Your task to perform on an android device: open app "Grab" (install if not already installed), go to login, and select forgot password Image 0: 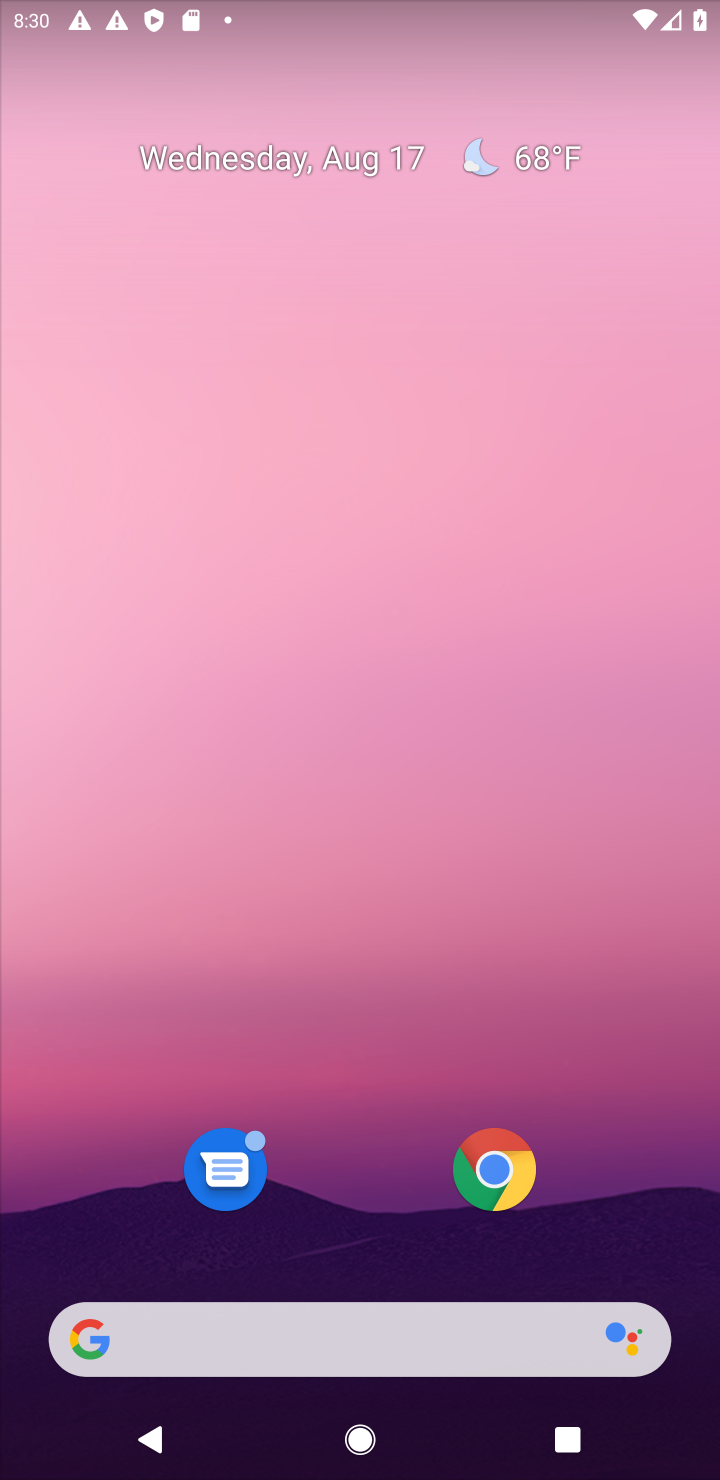
Step 0: drag from (330, 671) to (393, 259)
Your task to perform on an android device: open app "Grab" (install if not already installed), go to login, and select forgot password Image 1: 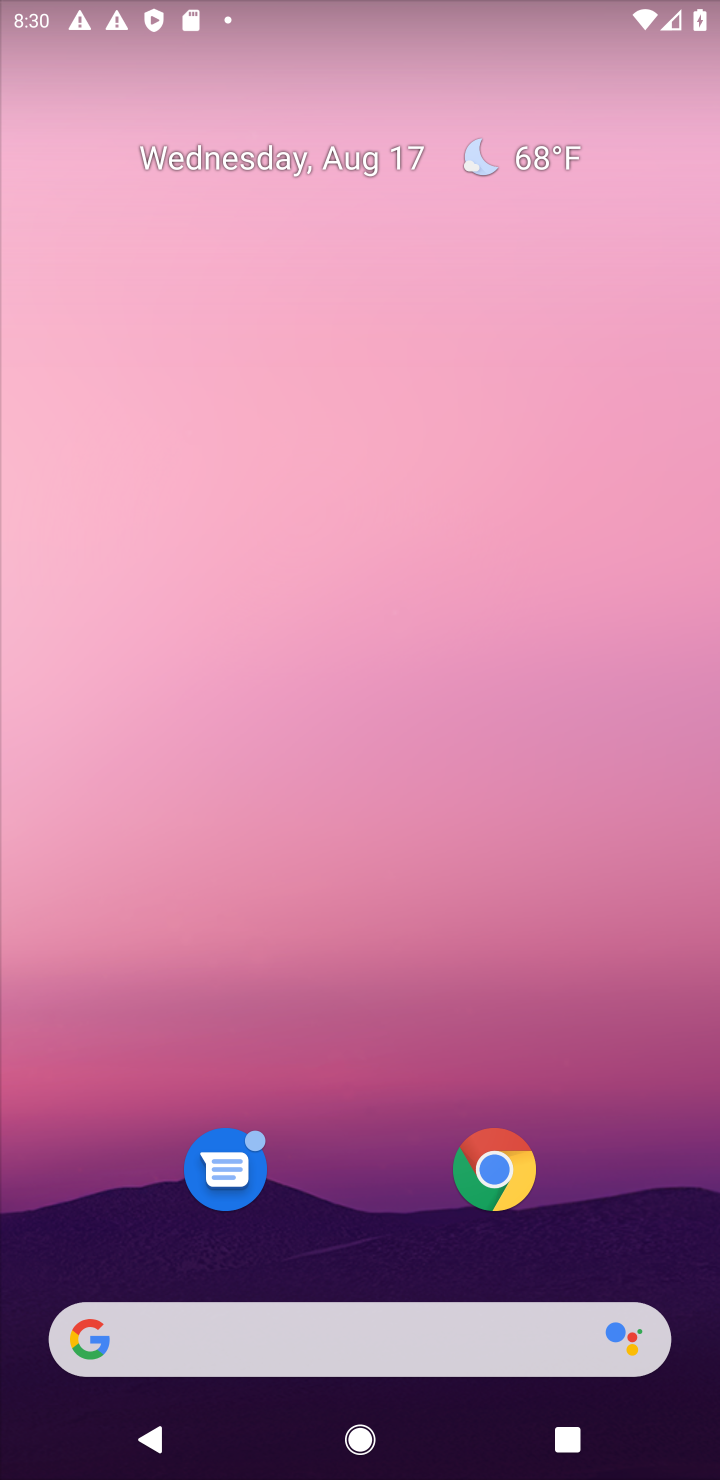
Step 1: drag from (359, 1023) to (386, 11)
Your task to perform on an android device: open app "Grab" (install if not already installed), go to login, and select forgot password Image 2: 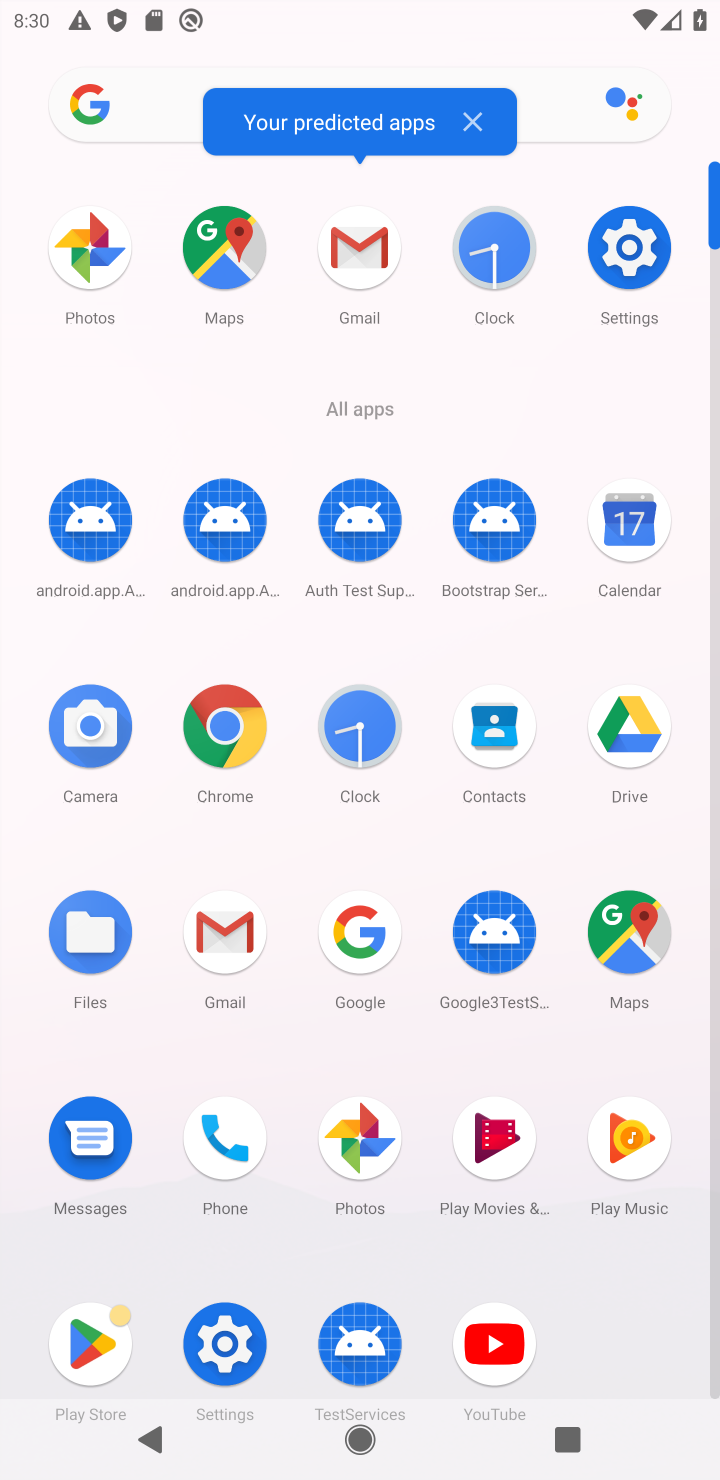
Step 2: click (66, 1350)
Your task to perform on an android device: open app "Grab" (install if not already installed), go to login, and select forgot password Image 3: 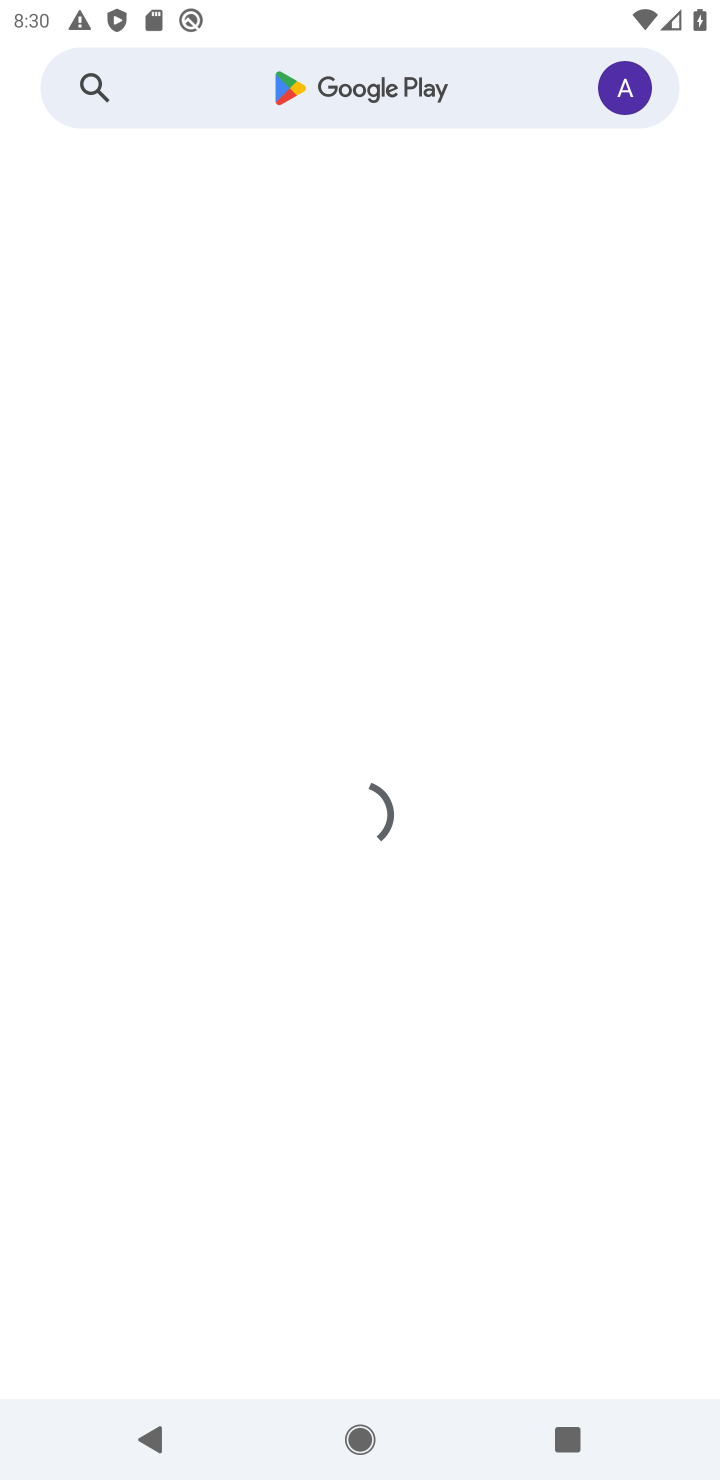
Step 3: click (347, 89)
Your task to perform on an android device: open app "Grab" (install if not already installed), go to login, and select forgot password Image 4: 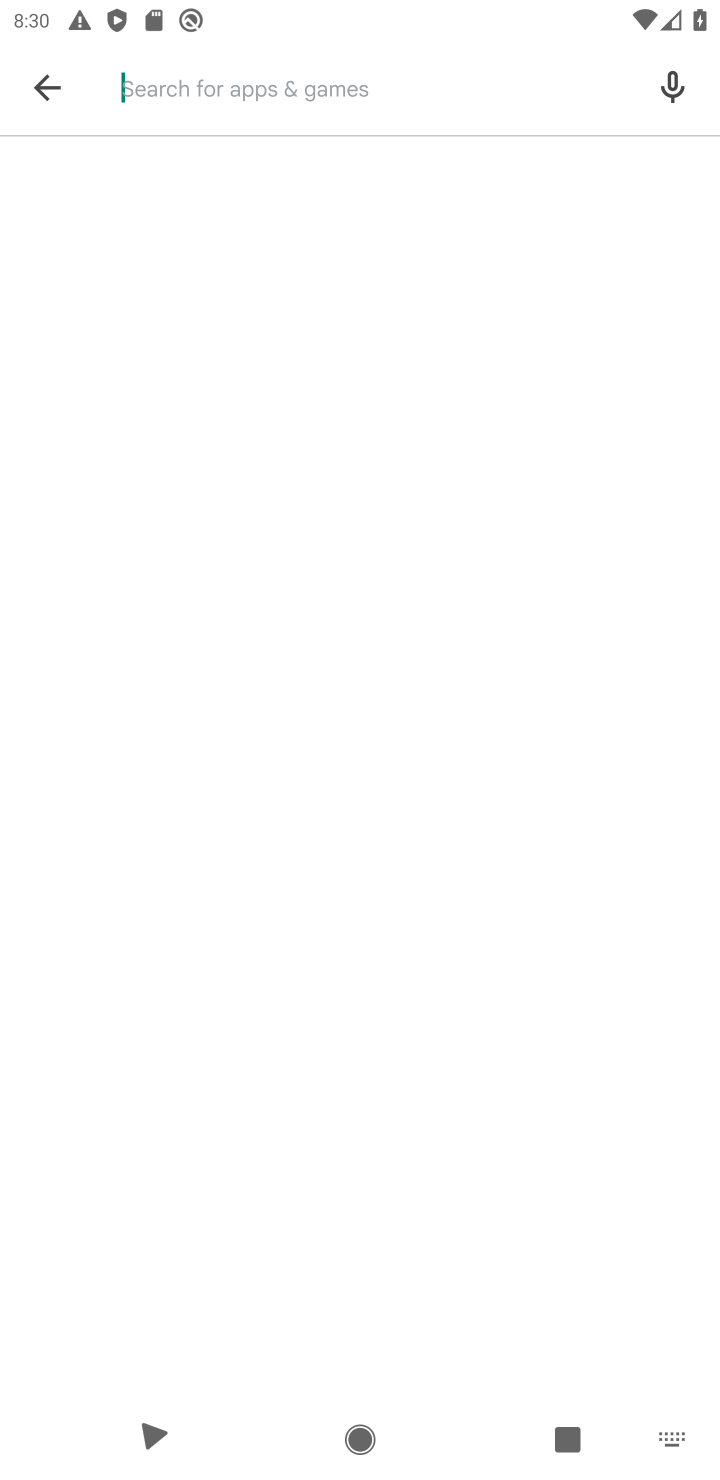
Step 4: type "Grab"
Your task to perform on an android device: open app "Grab" (install if not already installed), go to login, and select forgot password Image 5: 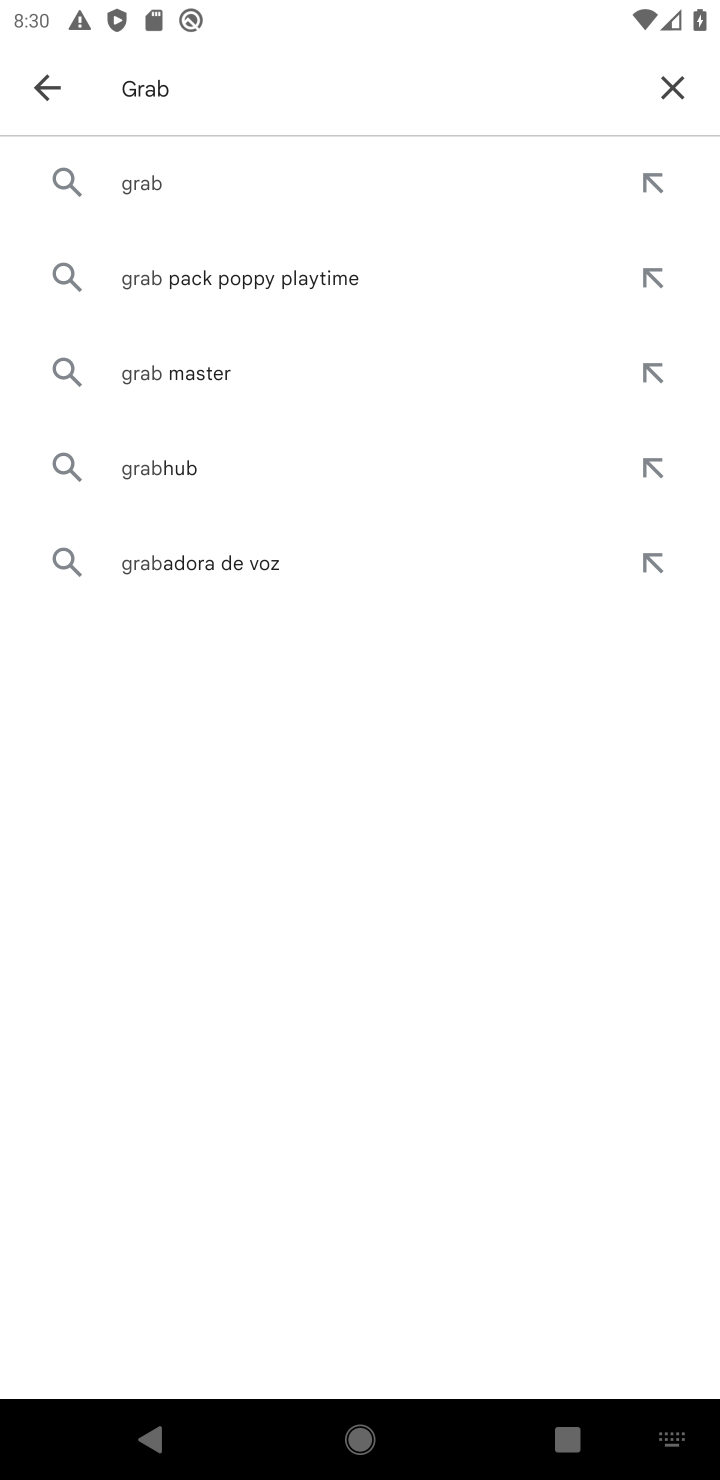
Step 5: click (203, 189)
Your task to perform on an android device: open app "Grab" (install if not already installed), go to login, and select forgot password Image 6: 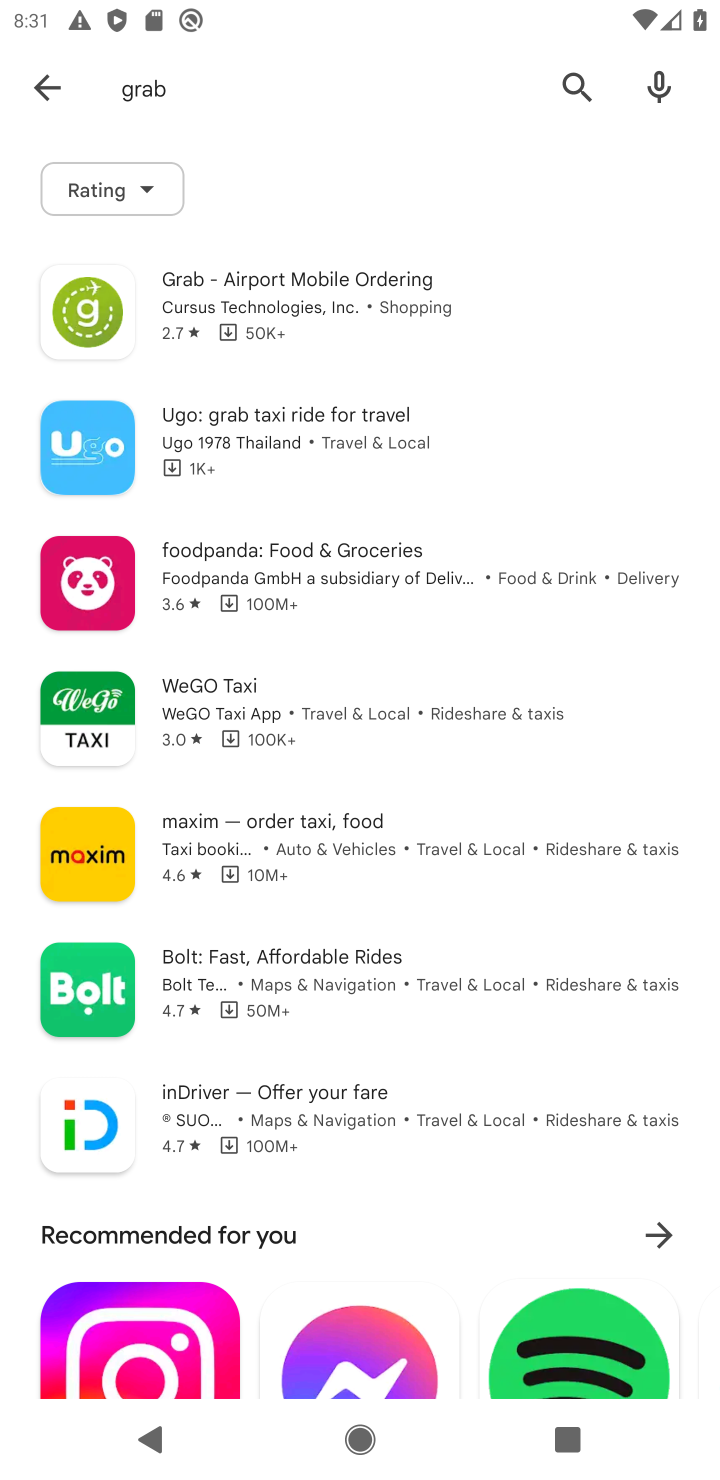
Step 6: click (289, 307)
Your task to perform on an android device: open app "Grab" (install if not already installed), go to login, and select forgot password Image 7: 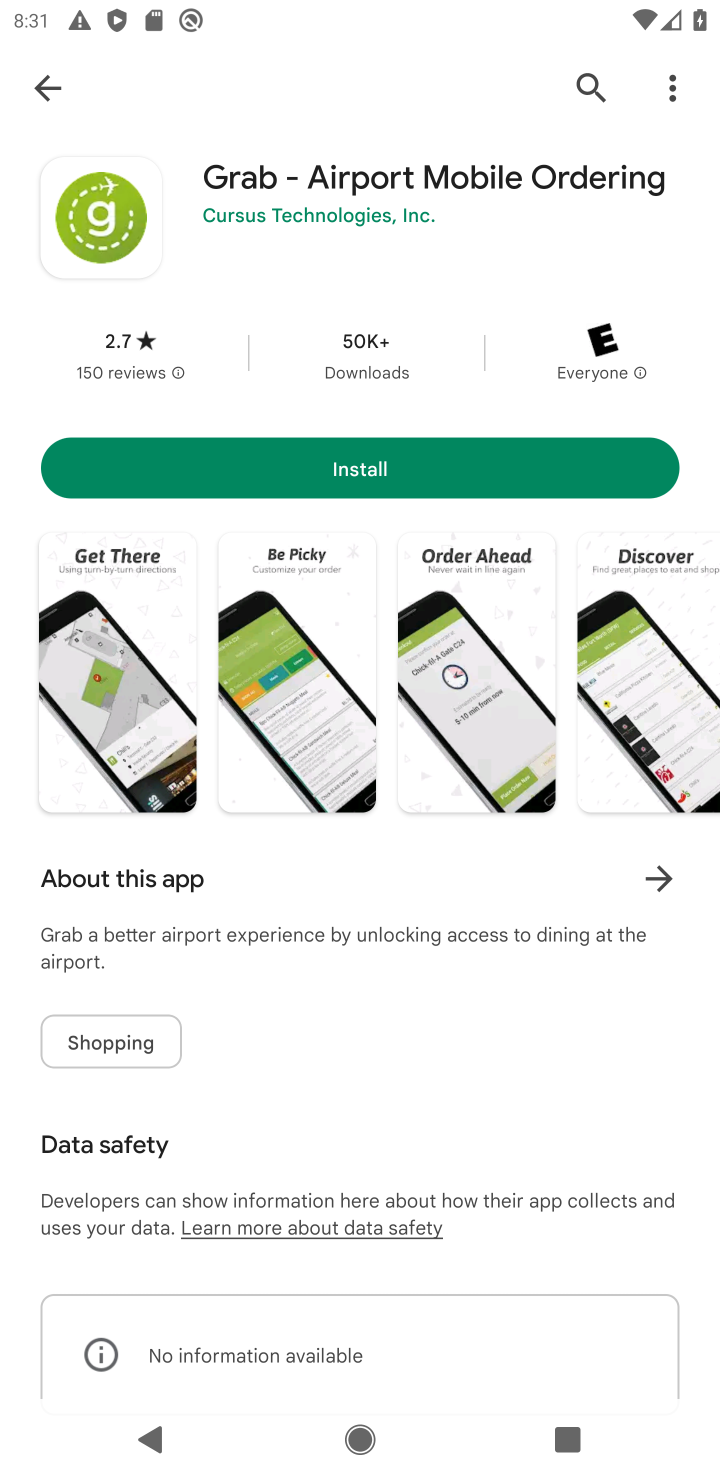
Step 7: click (450, 476)
Your task to perform on an android device: open app "Grab" (install if not already installed), go to login, and select forgot password Image 8: 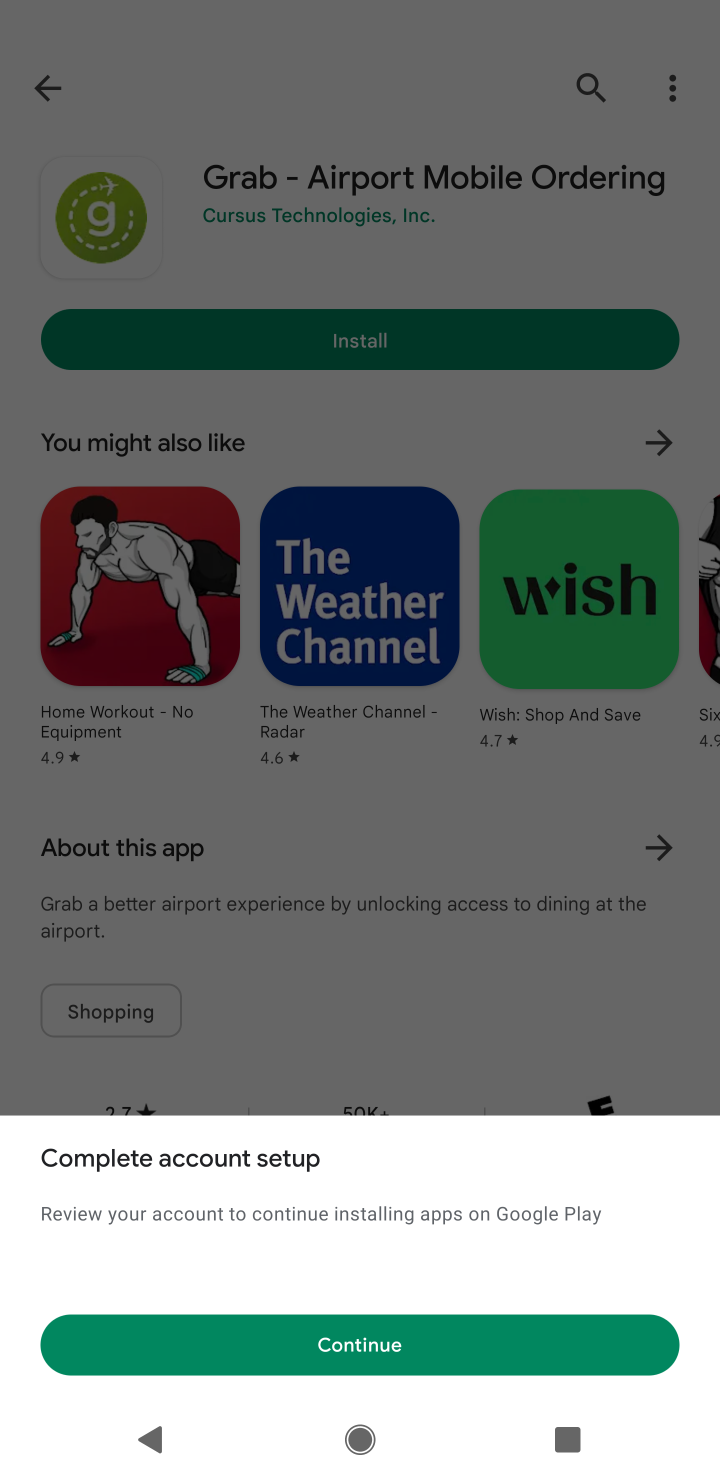
Step 8: click (403, 1351)
Your task to perform on an android device: open app "Grab" (install if not already installed), go to login, and select forgot password Image 9: 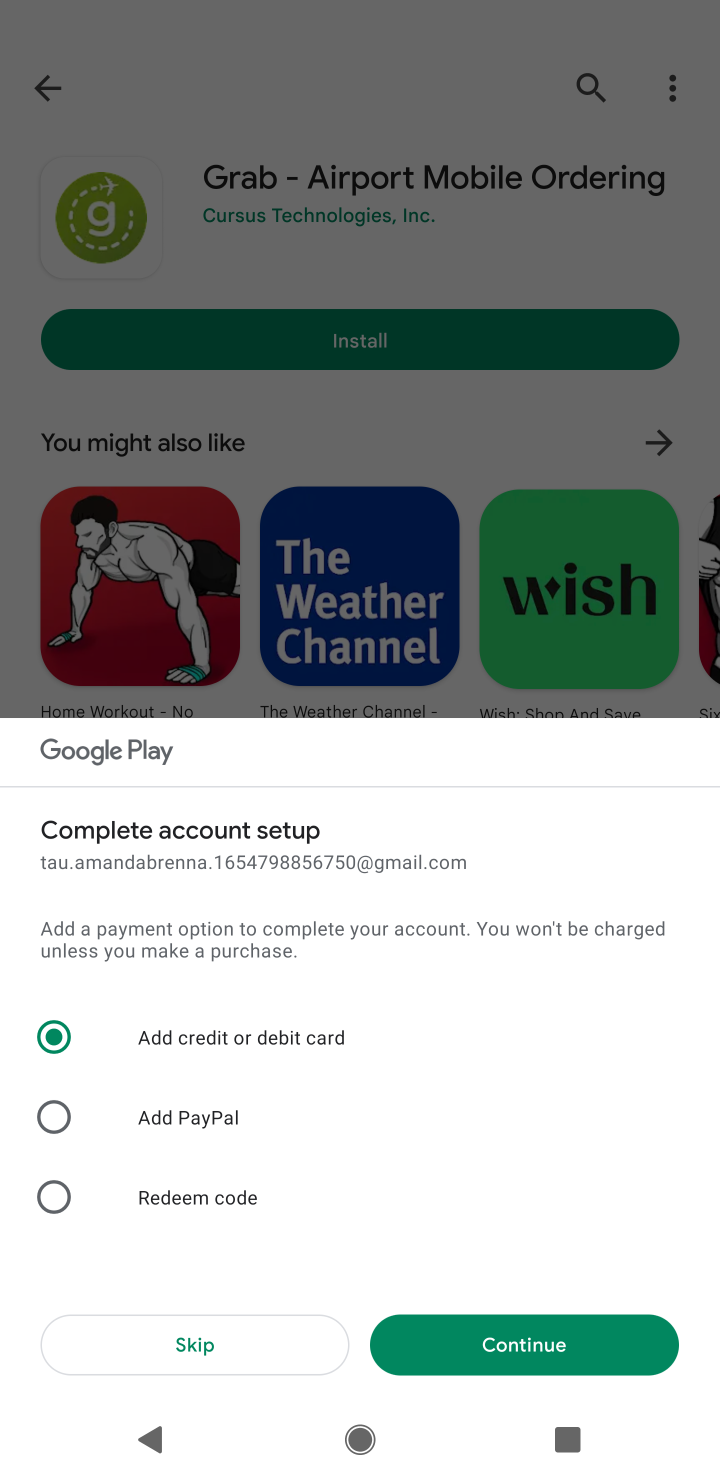
Step 9: click (233, 1352)
Your task to perform on an android device: open app "Grab" (install if not already installed), go to login, and select forgot password Image 10: 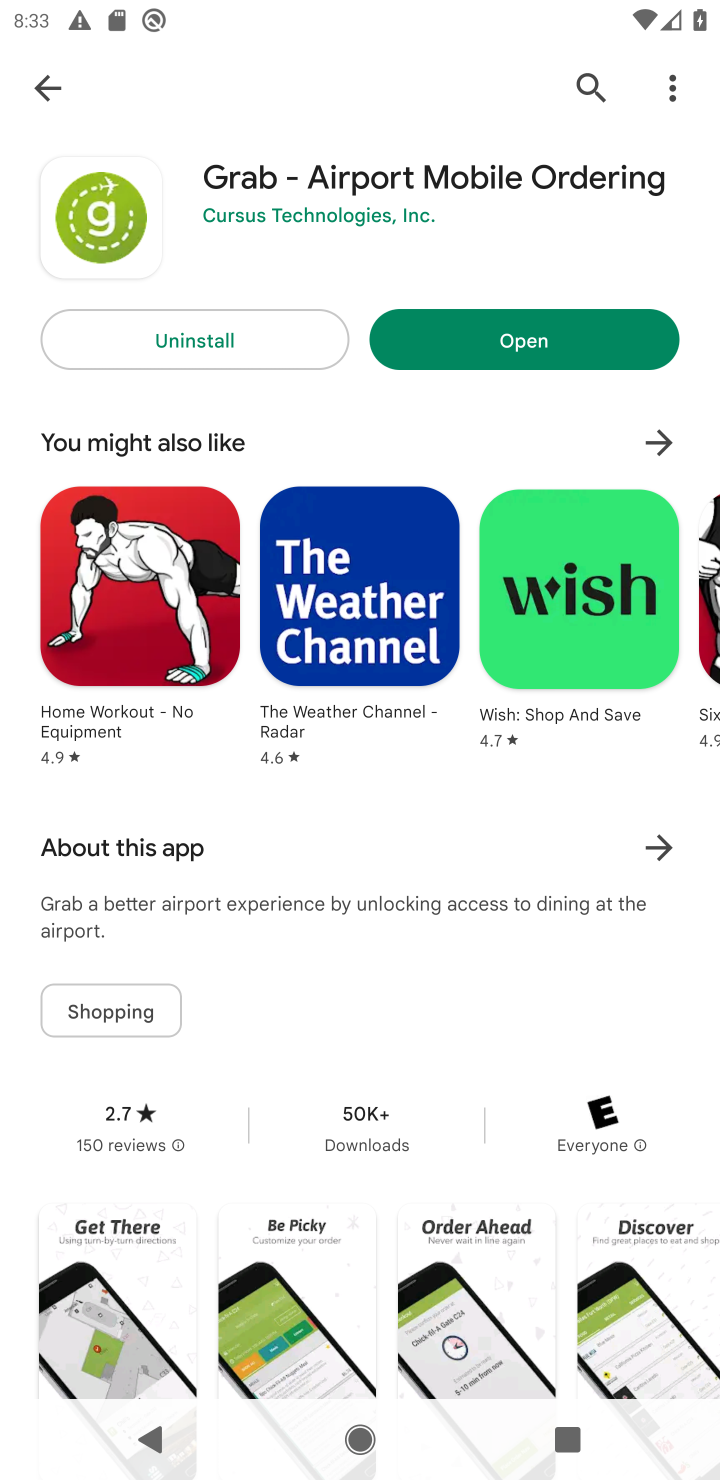
Step 10: click (524, 338)
Your task to perform on an android device: open app "Grab" (install if not already installed), go to login, and select forgot password Image 11: 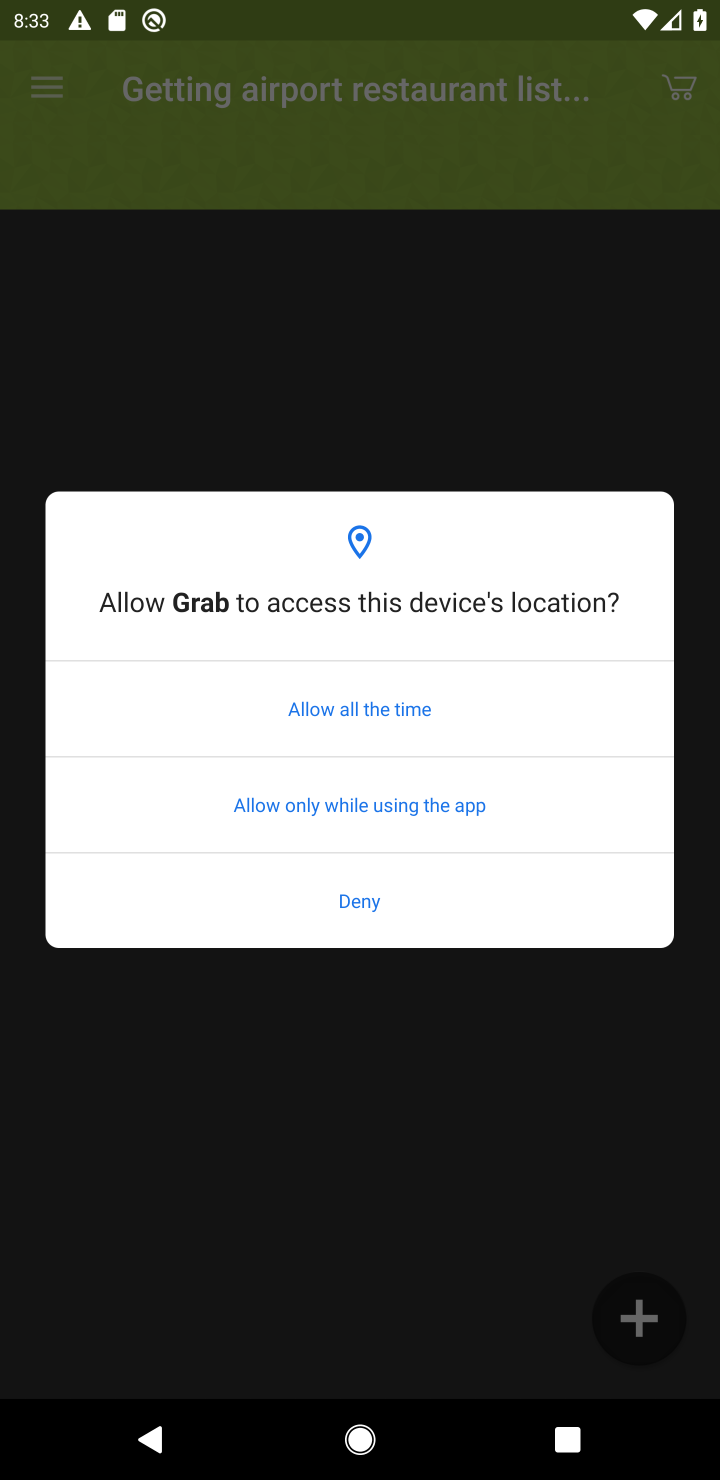
Step 11: click (328, 698)
Your task to perform on an android device: open app "Grab" (install if not already installed), go to login, and select forgot password Image 12: 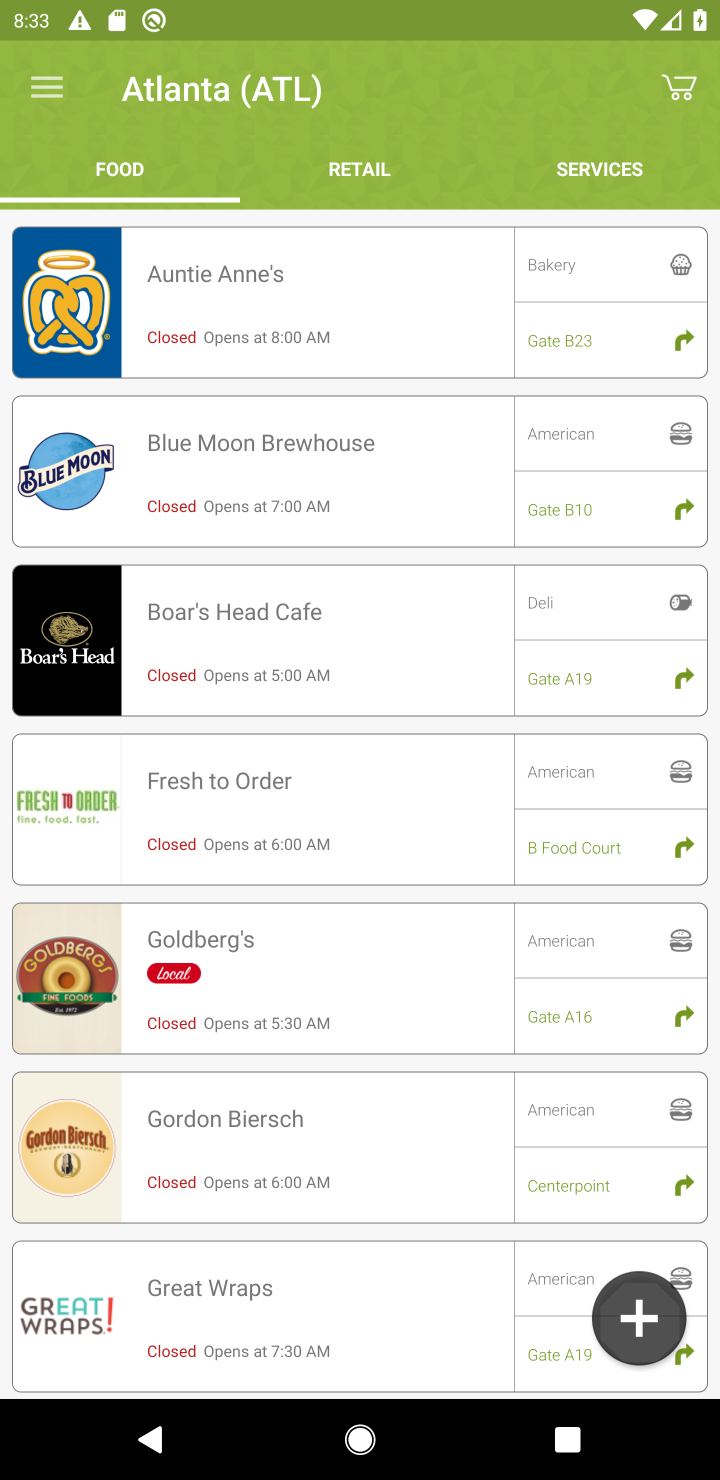
Step 12: click (50, 84)
Your task to perform on an android device: open app "Grab" (install if not already installed), go to login, and select forgot password Image 13: 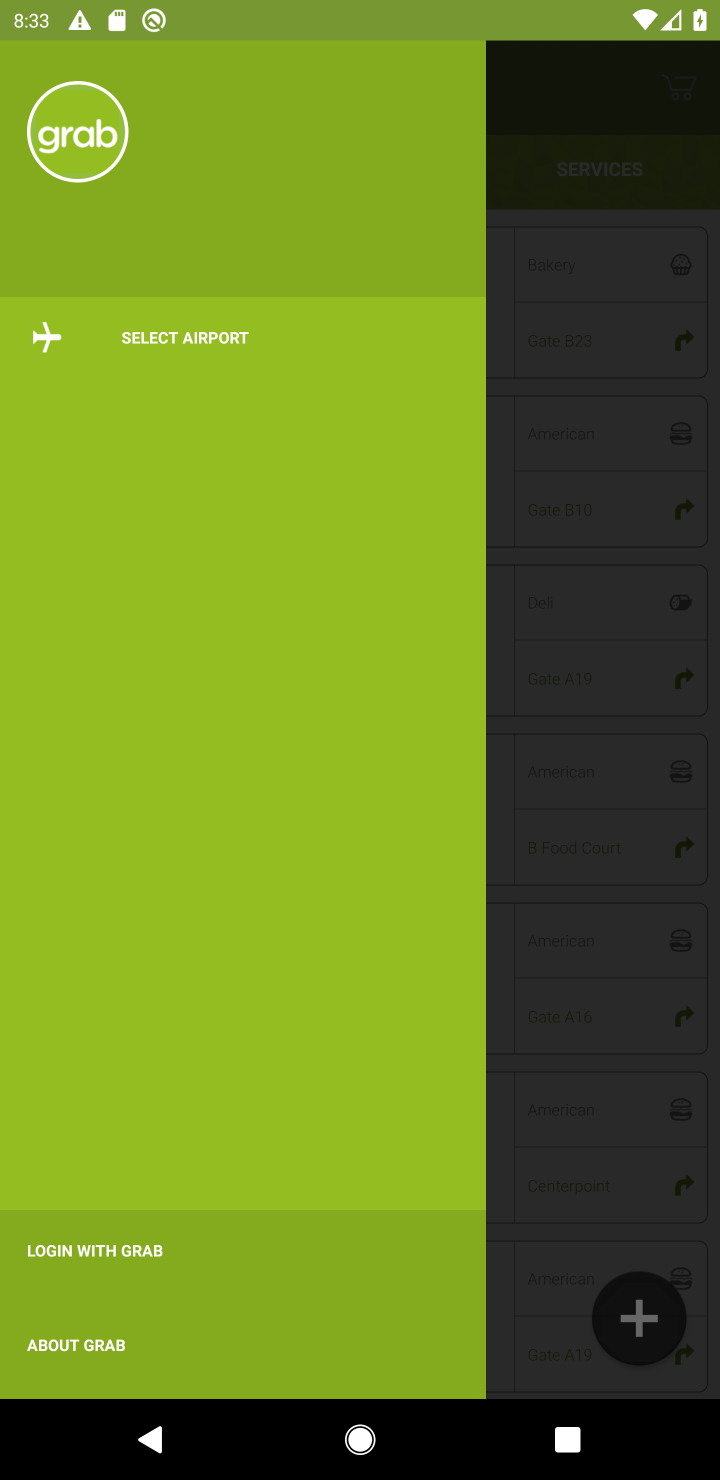
Step 13: click (93, 1256)
Your task to perform on an android device: open app "Grab" (install if not already installed), go to login, and select forgot password Image 14: 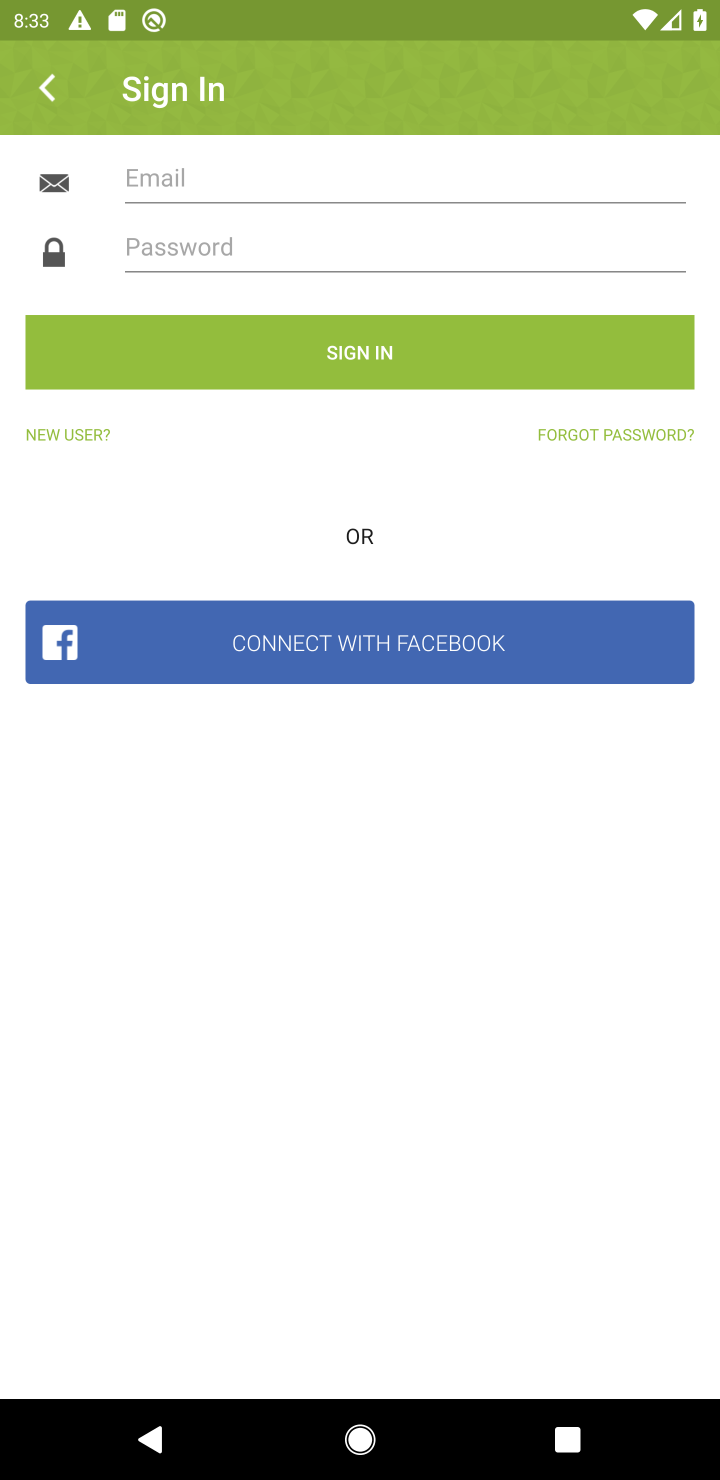
Step 14: click (620, 426)
Your task to perform on an android device: open app "Grab" (install if not already installed), go to login, and select forgot password Image 15: 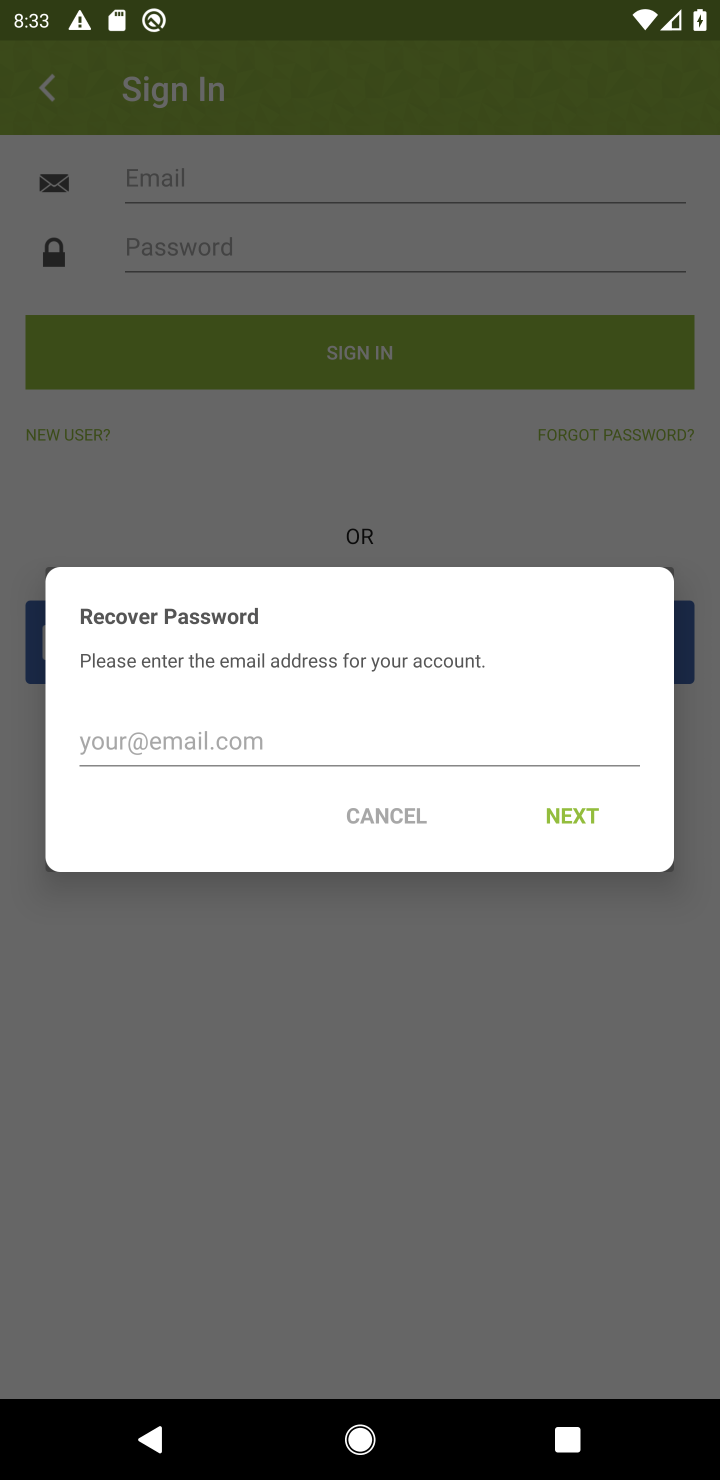
Step 15: task complete